Your task to perform on an android device: turn on bluetooth scan Image 0: 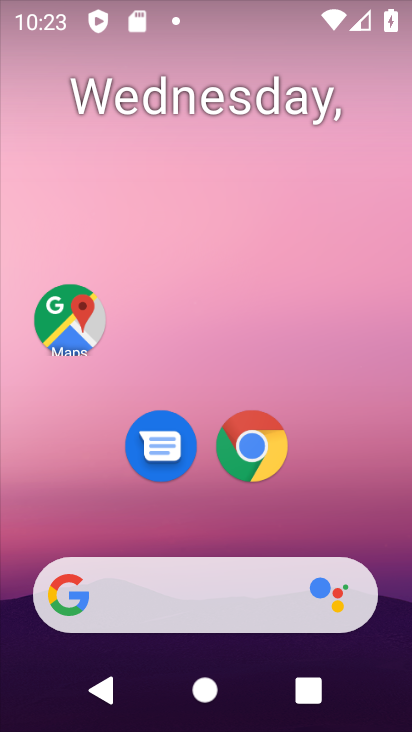
Step 0: drag from (98, 555) to (187, 118)
Your task to perform on an android device: turn on bluetooth scan Image 1: 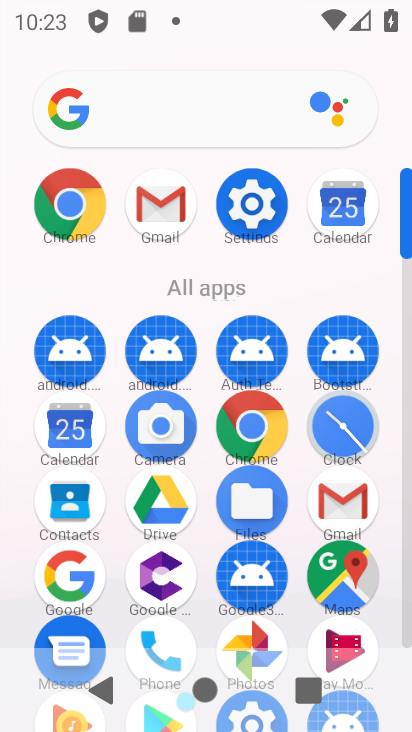
Step 1: drag from (171, 629) to (241, 321)
Your task to perform on an android device: turn on bluetooth scan Image 2: 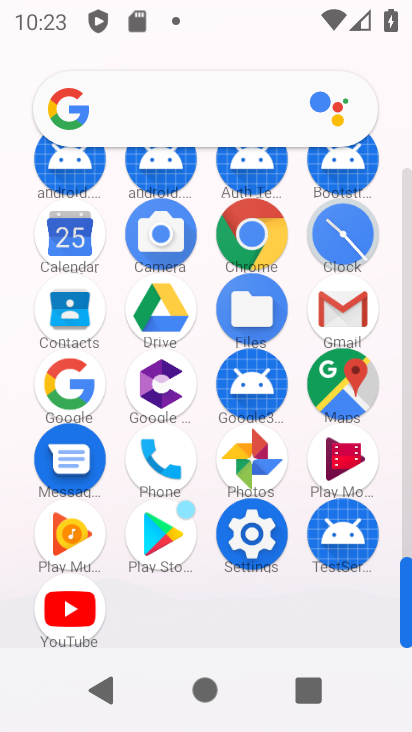
Step 2: click (250, 546)
Your task to perform on an android device: turn on bluetooth scan Image 3: 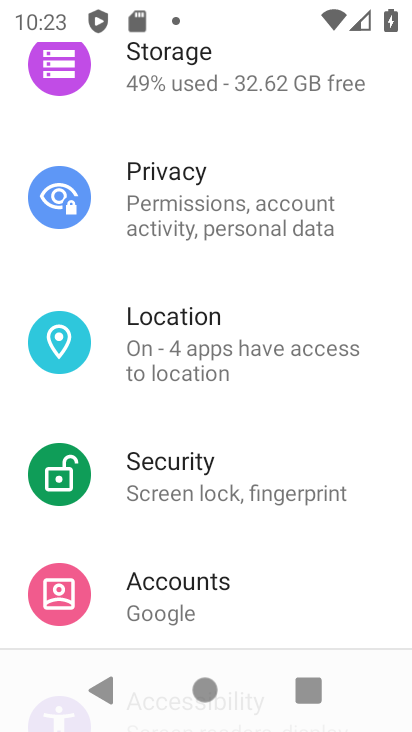
Step 3: drag from (269, 274) to (265, 653)
Your task to perform on an android device: turn on bluetooth scan Image 4: 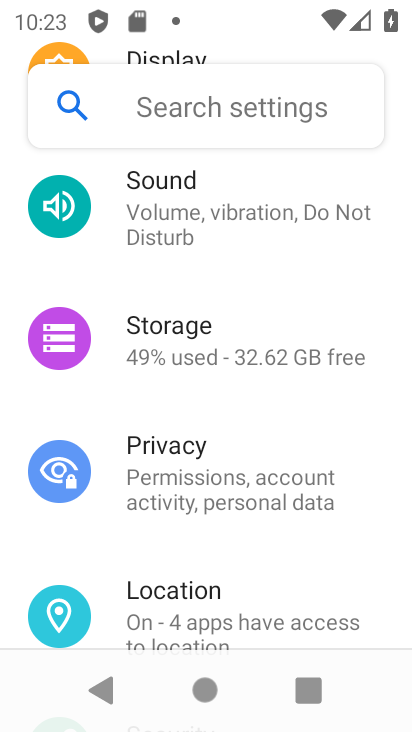
Step 4: drag from (283, 283) to (268, 668)
Your task to perform on an android device: turn on bluetooth scan Image 5: 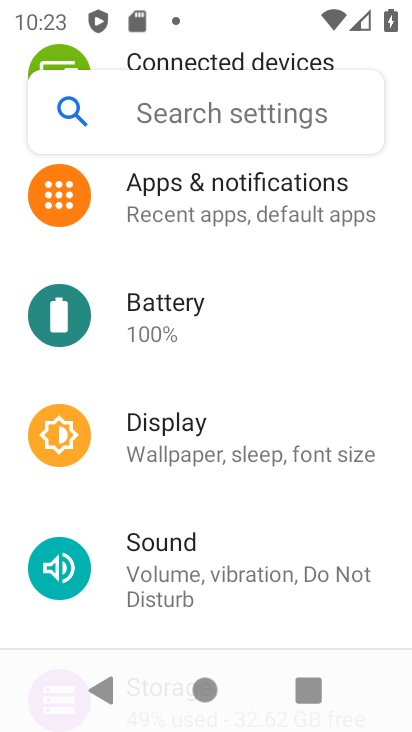
Step 5: drag from (258, 253) to (251, 575)
Your task to perform on an android device: turn on bluetooth scan Image 6: 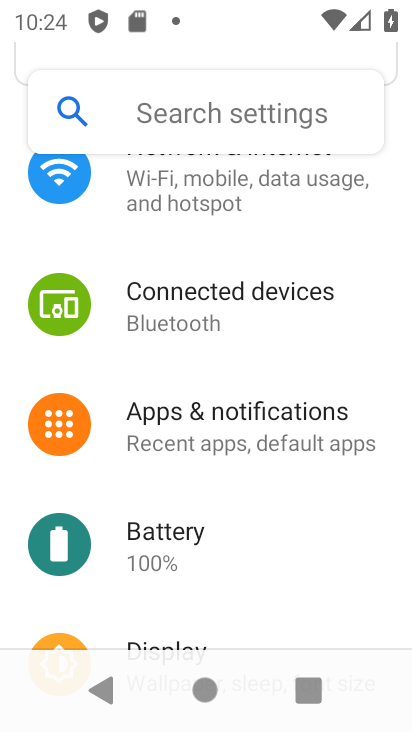
Step 6: click (265, 309)
Your task to perform on an android device: turn on bluetooth scan Image 7: 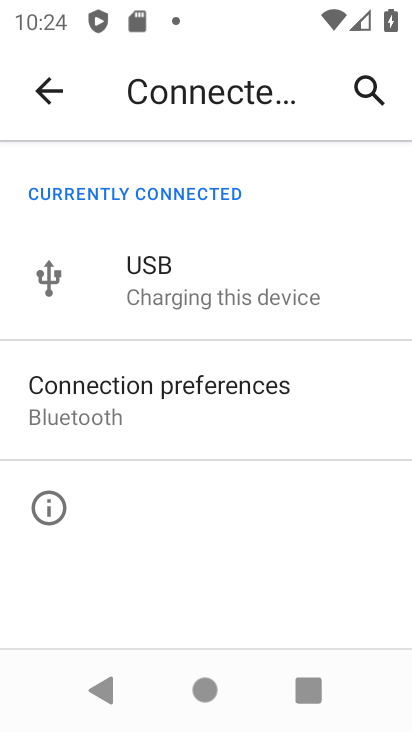
Step 7: click (238, 414)
Your task to perform on an android device: turn on bluetooth scan Image 8: 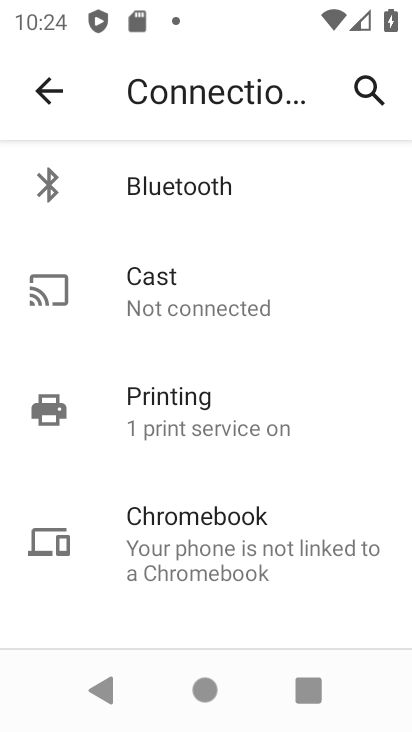
Step 8: click (251, 191)
Your task to perform on an android device: turn on bluetooth scan Image 9: 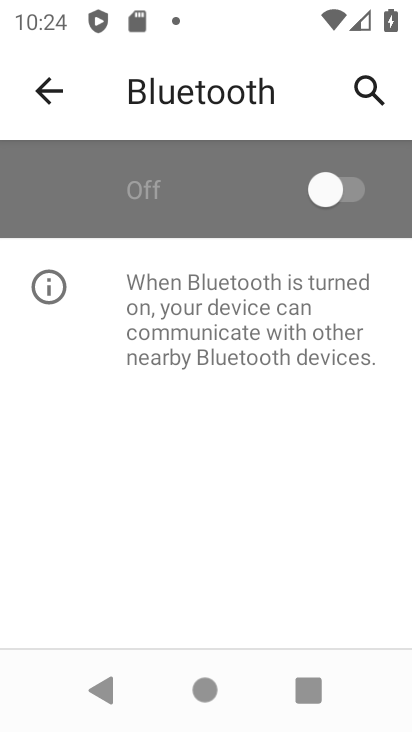
Step 9: click (358, 193)
Your task to perform on an android device: turn on bluetooth scan Image 10: 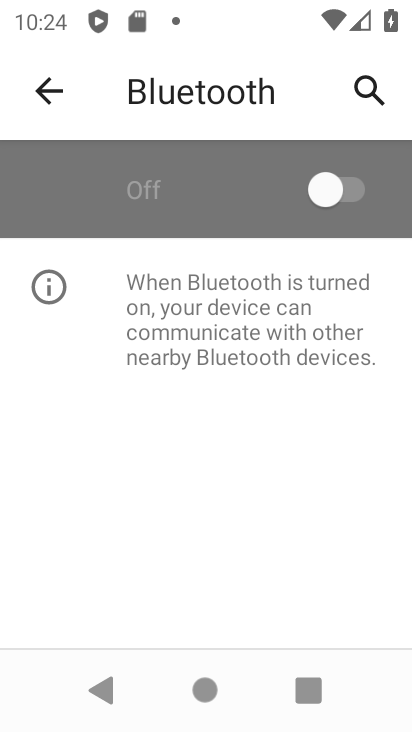
Step 10: click (359, 192)
Your task to perform on an android device: turn on bluetooth scan Image 11: 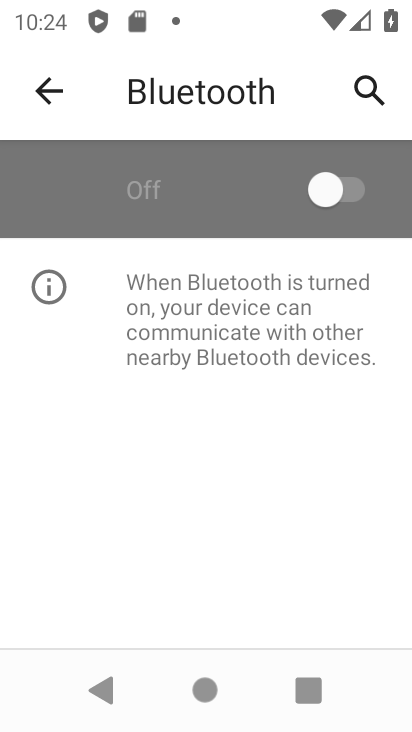
Step 11: task complete